Your task to perform on an android device: read, delete, or share a saved page in the chrome app Image 0: 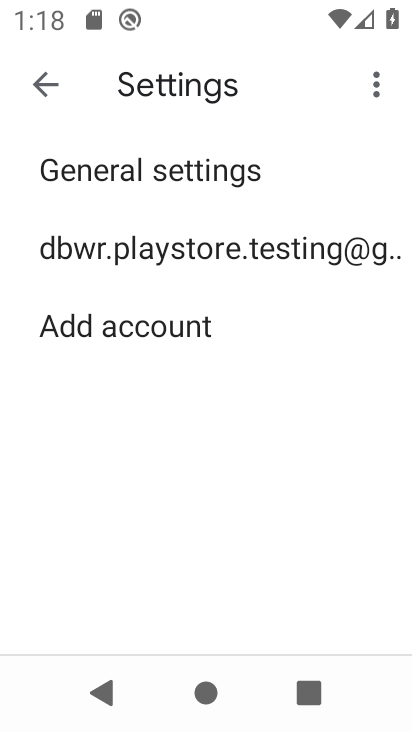
Step 0: press home button
Your task to perform on an android device: read, delete, or share a saved page in the chrome app Image 1: 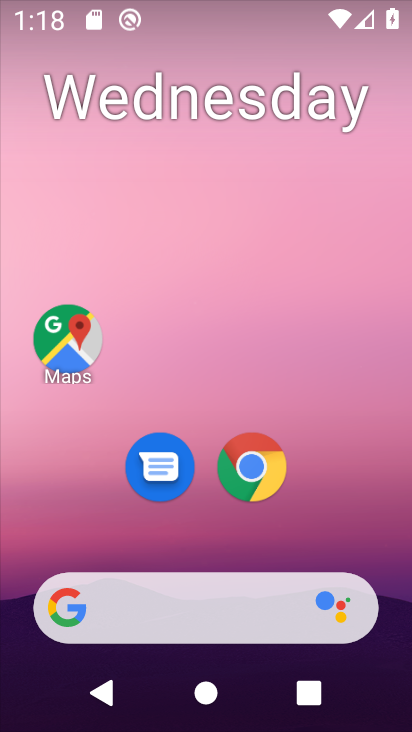
Step 1: click (251, 459)
Your task to perform on an android device: read, delete, or share a saved page in the chrome app Image 2: 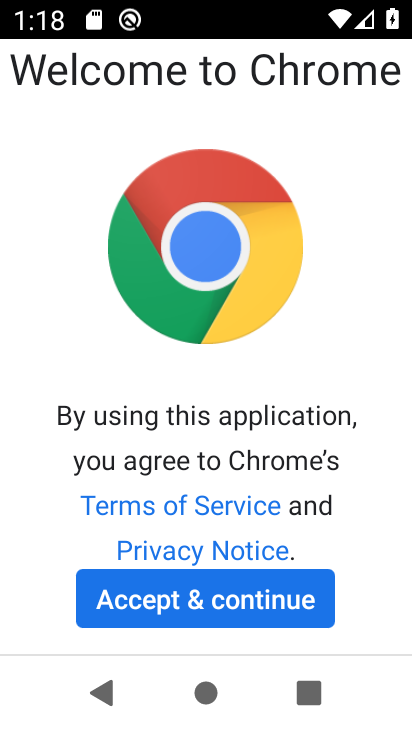
Step 2: click (185, 604)
Your task to perform on an android device: read, delete, or share a saved page in the chrome app Image 3: 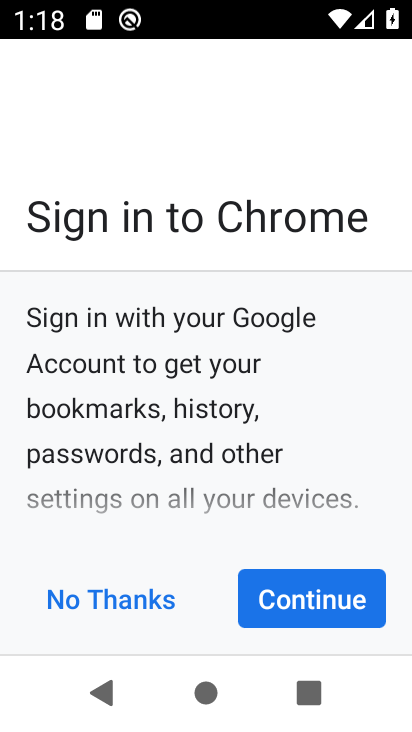
Step 3: click (281, 597)
Your task to perform on an android device: read, delete, or share a saved page in the chrome app Image 4: 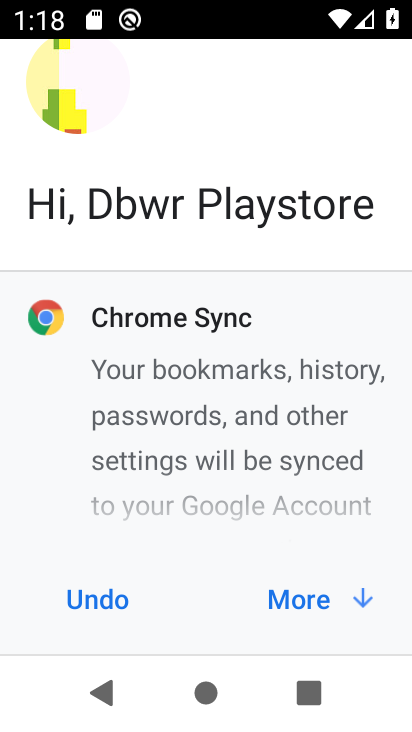
Step 4: click (299, 601)
Your task to perform on an android device: read, delete, or share a saved page in the chrome app Image 5: 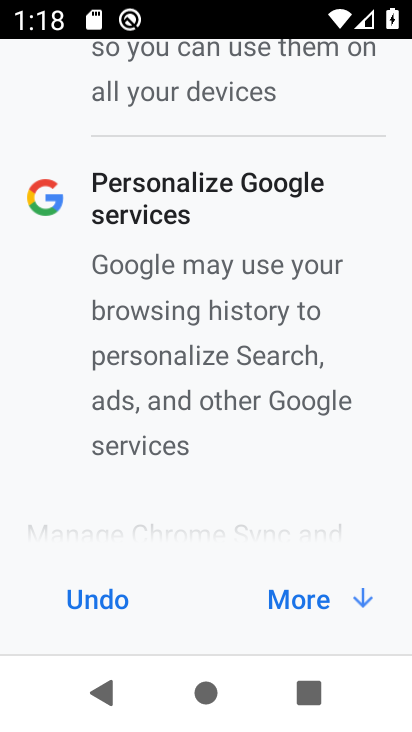
Step 5: click (300, 597)
Your task to perform on an android device: read, delete, or share a saved page in the chrome app Image 6: 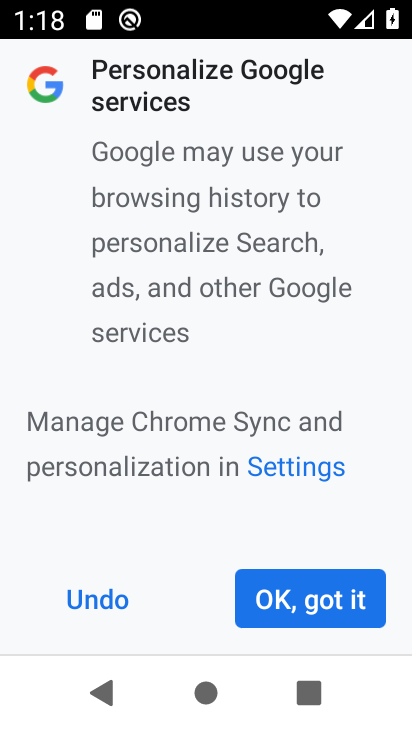
Step 6: click (300, 597)
Your task to perform on an android device: read, delete, or share a saved page in the chrome app Image 7: 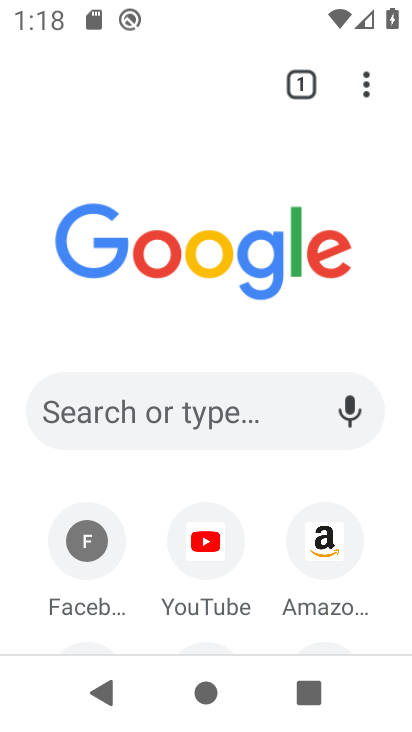
Step 7: click (368, 92)
Your task to perform on an android device: read, delete, or share a saved page in the chrome app Image 8: 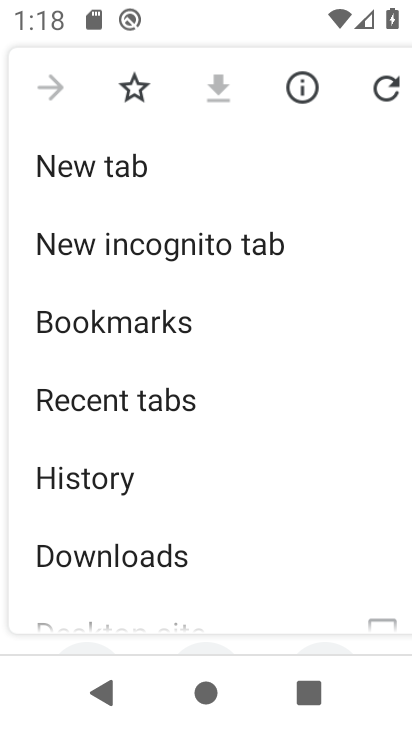
Step 8: click (94, 564)
Your task to perform on an android device: read, delete, or share a saved page in the chrome app Image 9: 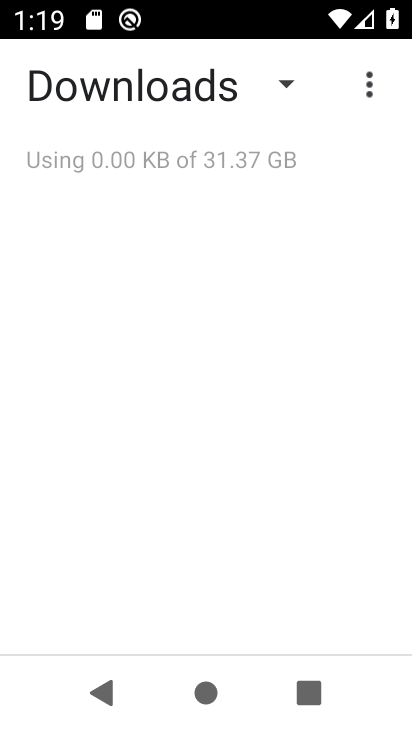
Step 9: click (281, 81)
Your task to perform on an android device: read, delete, or share a saved page in the chrome app Image 10: 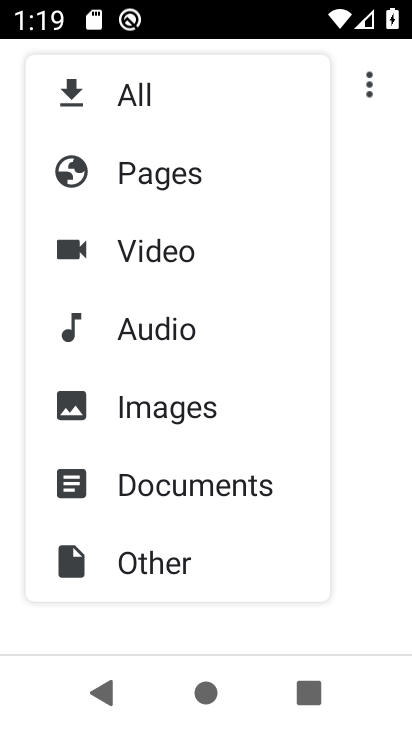
Step 10: click (130, 173)
Your task to perform on an android device: read, delete, or share a saved page in the chrome app Image 11: 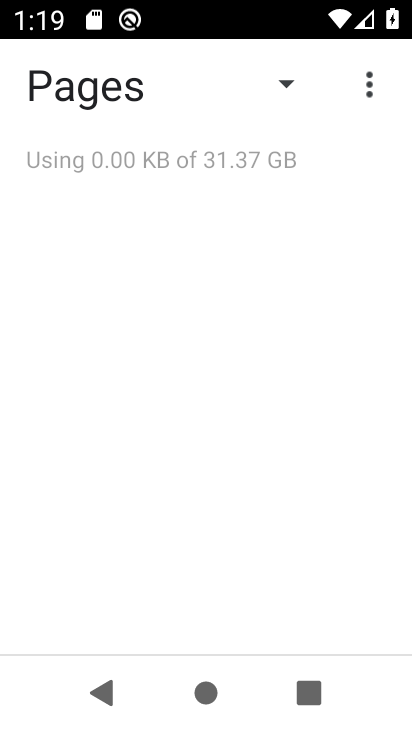
Step 11: task complete